Your task to perform on an android device: change the clock display to analog Image 0: 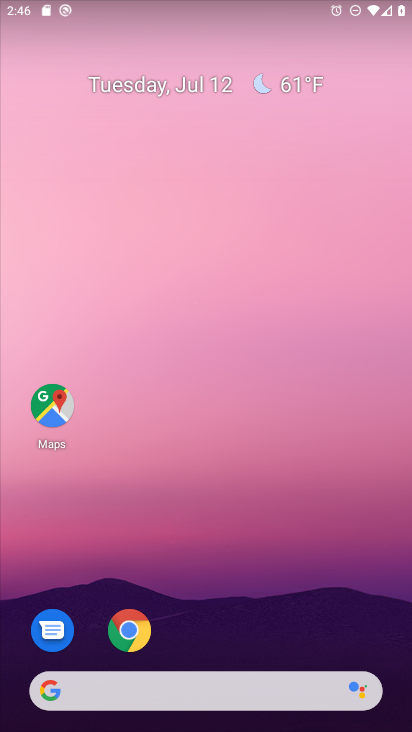
Step 0: drag from (206, 628) to (234, 143)
Your task to perform on an android device: change the clock display to analog Image 1: 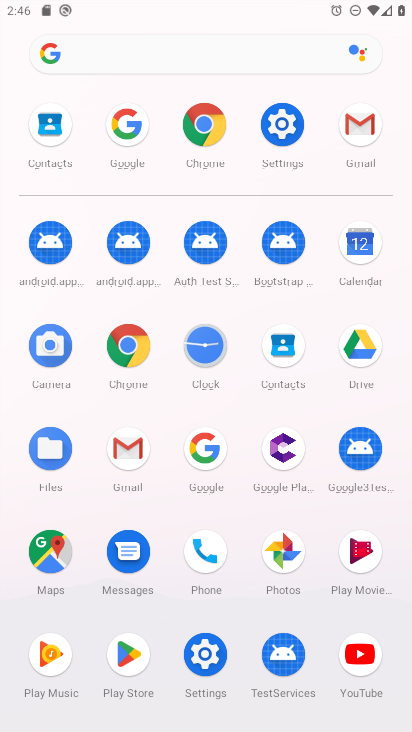
Step 1: click (196, 361)
Your task to perform on an android device: change the clock display to analog Image 2: 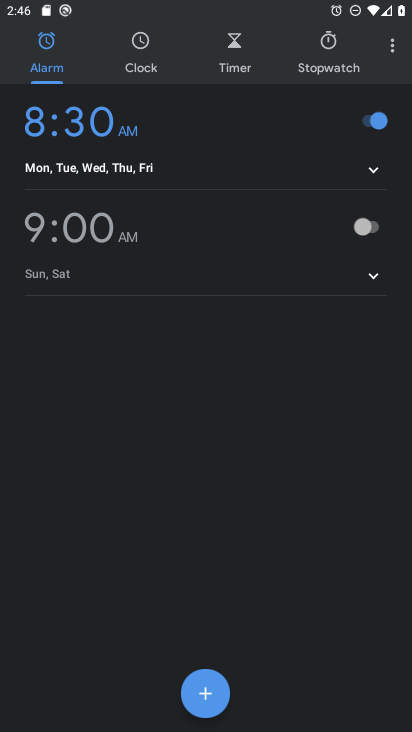
Step 2: click (384, 42)
Your task to perform on an android device: change the clock display to analog Image 3: 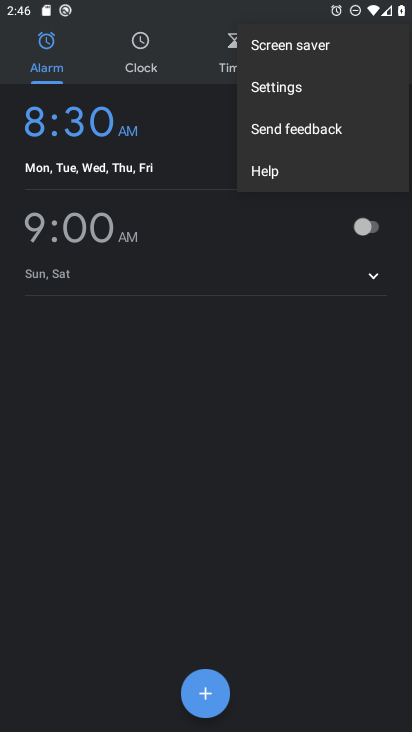
Step 3: click (321, 93)
Your task to perform on an android device: change the clock display to analog Image 4: 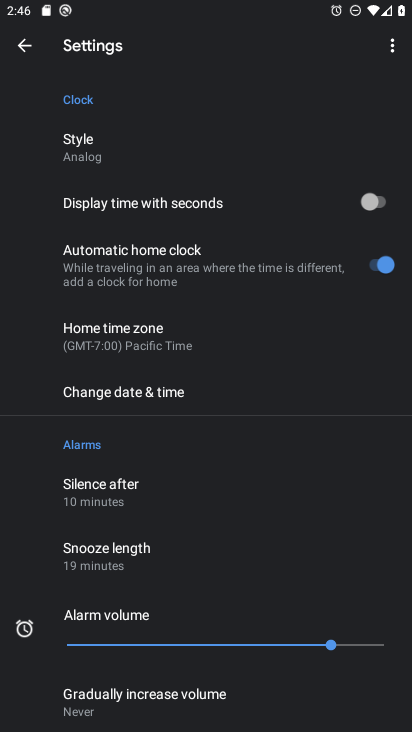
Step 4: click (121, 151)
Your task to perform on an android device: change the clock display to analog Image 5: 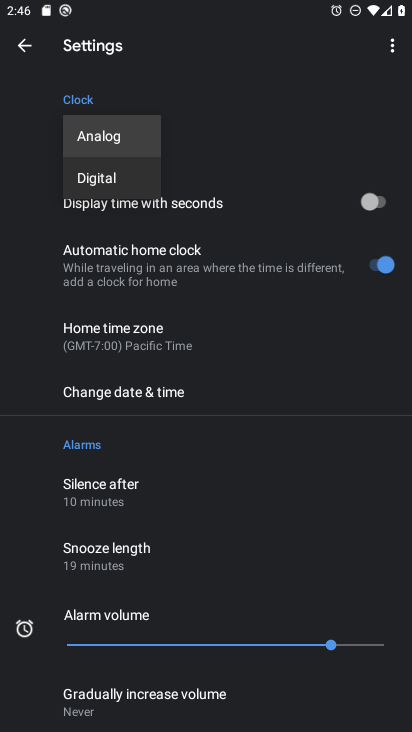
Step 5: task complete